Your task to perform on an android device: turn on bluetooth scan Image 0: 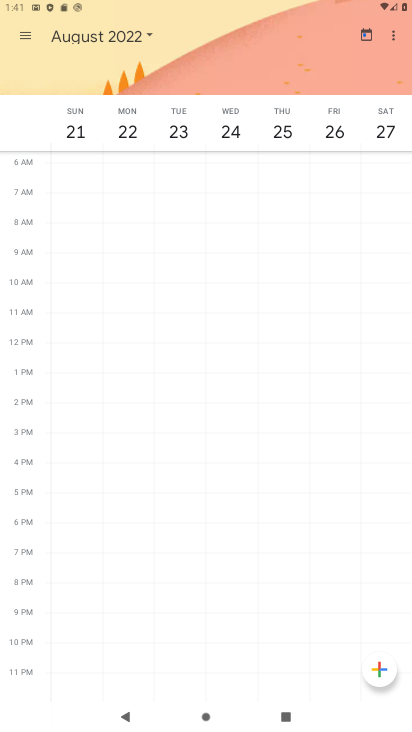
Step 0: press home button
Your task to perform on an android device: turn on bluetooth scan Image 1: 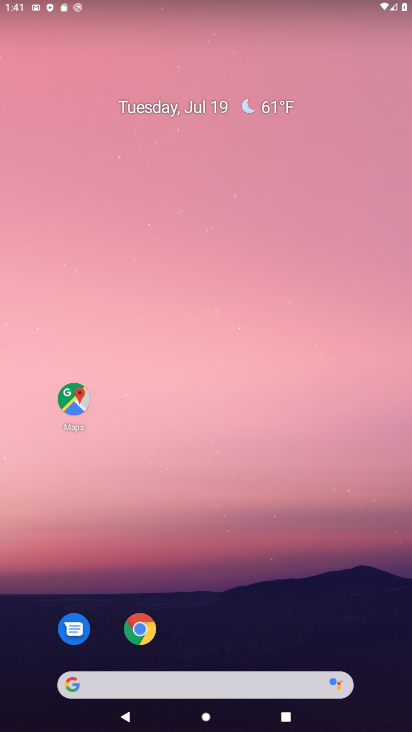
Step 1: drag from (376, 641) to (334, 82)
Your task to perform on an android device: turn on bluetooth scan Image 2: 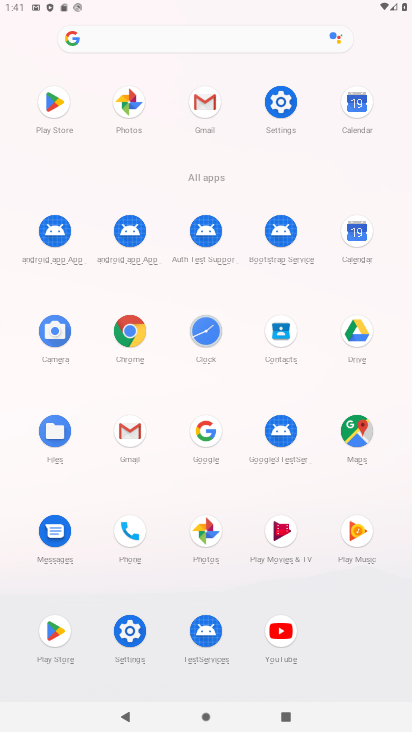
Step 2: click (132, 632)
Your task to perform on an android device: turn on bluetooth scan Image 3: 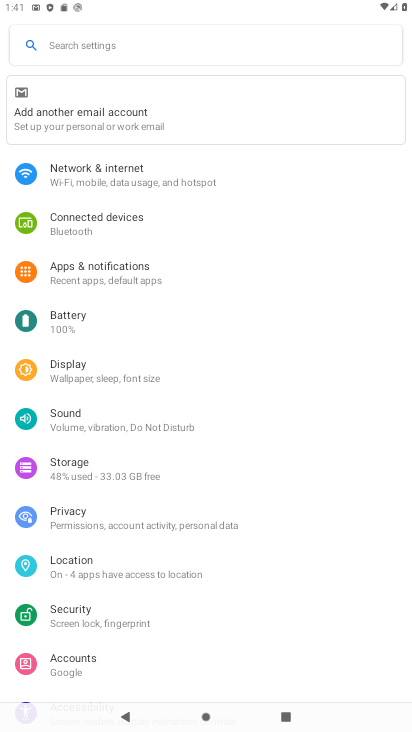
Step 3: click (89, 564)
Your task to perform on an android device: turn on bluetooth scan Image 4: 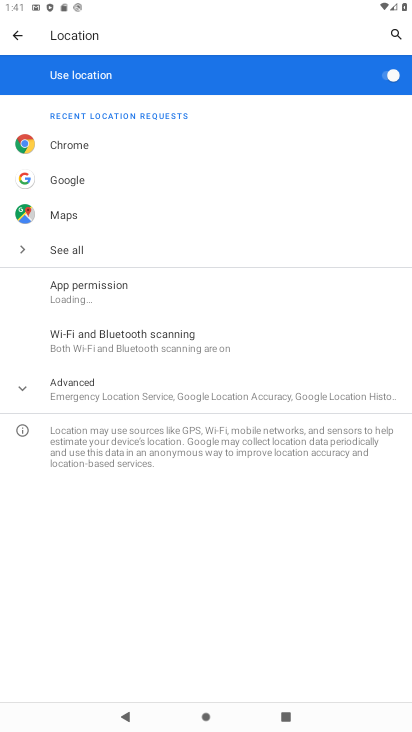
Step 4: click (113, 340)
Your task to perform on an android device: turn on bluetooth scan Image 5: 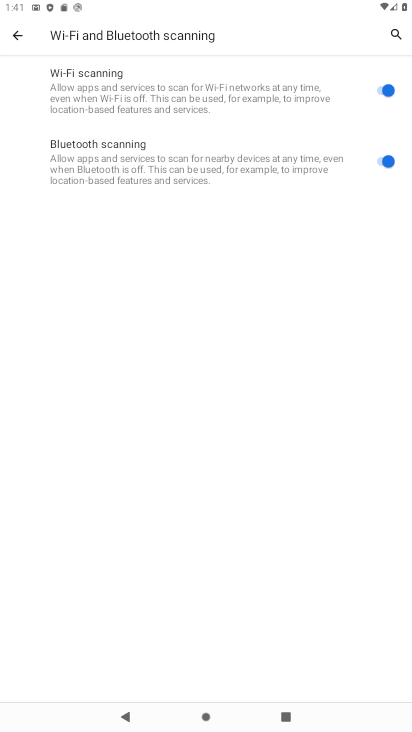
Step 5: task complete